Your task to perform on an android device: Go to notification settings Image 0: 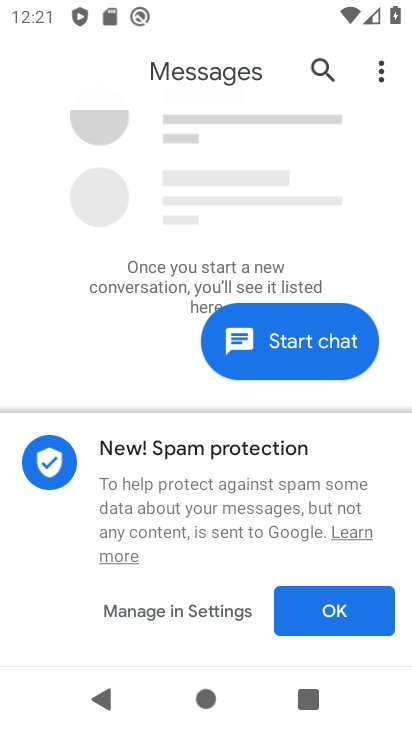
Step 0: press home button
Your task to perform on an android device: Go to notification settings Image 1: 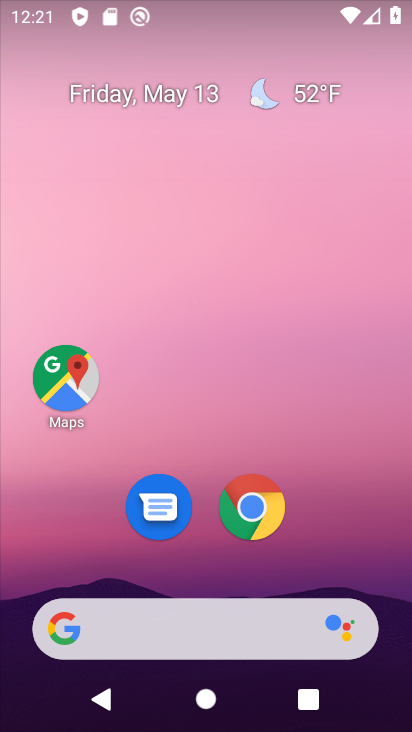
Step 1: drag from (194, 595) to (221, 203)
Your task to perform on an android device: Go to notification settings Image 2: 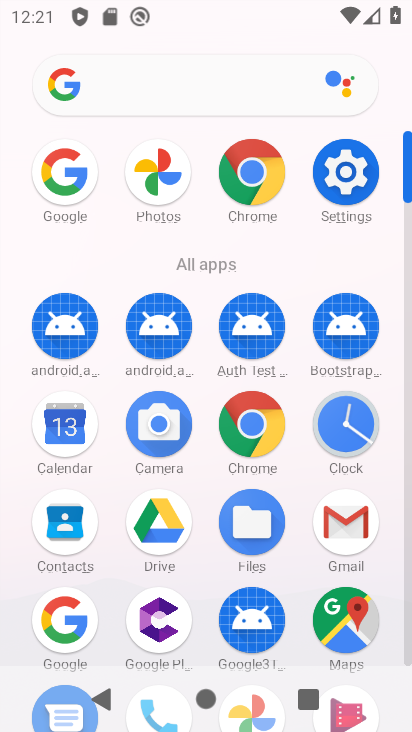
Step 2: click (355, 183)
Your task to perform on an android device: Go to notification settings Image 3: 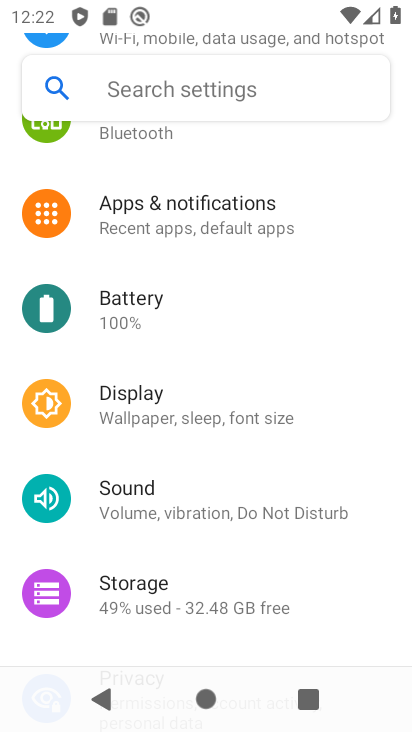
Step 3: click (210, 212)
Your task to perform on an android device: Go to notification settings Image 4: 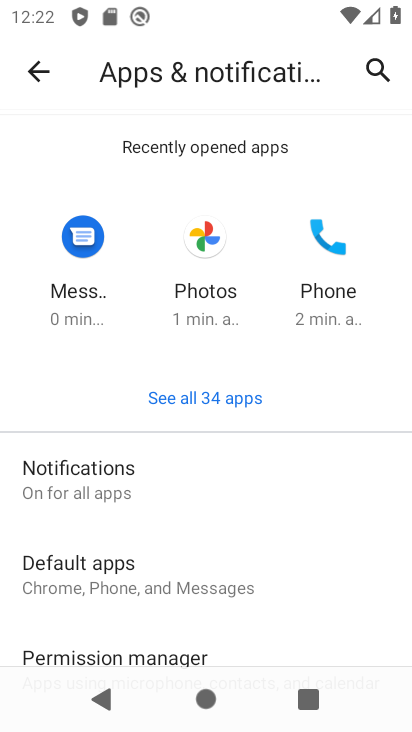
Step 4: drag from (130, 627) to (180, 248)
Your task to perform on an android device: Go to notification settings Image 5: 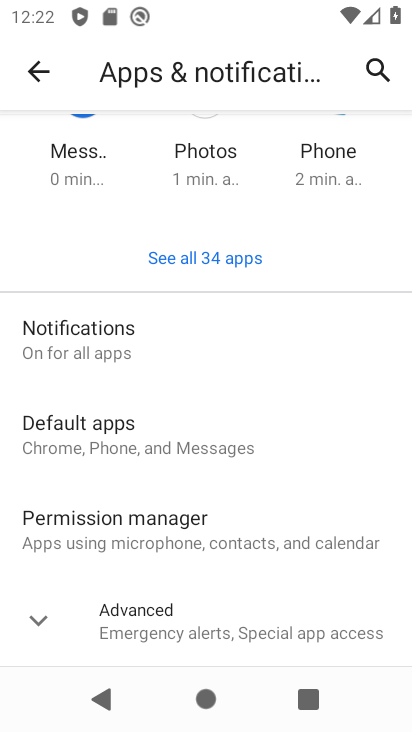
Step 5: click (156, 631)
Your task to perform on an android device: Go to notification settings Image 6: 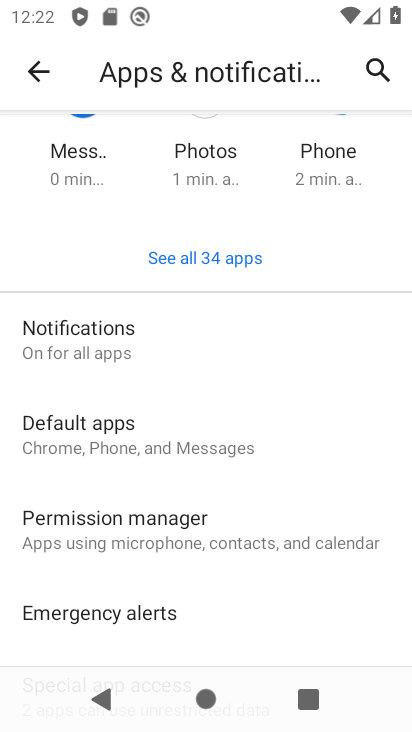
Step 6: task complete